Your task to perform on an android device: choose inbox layout in the gmail app Image 0: 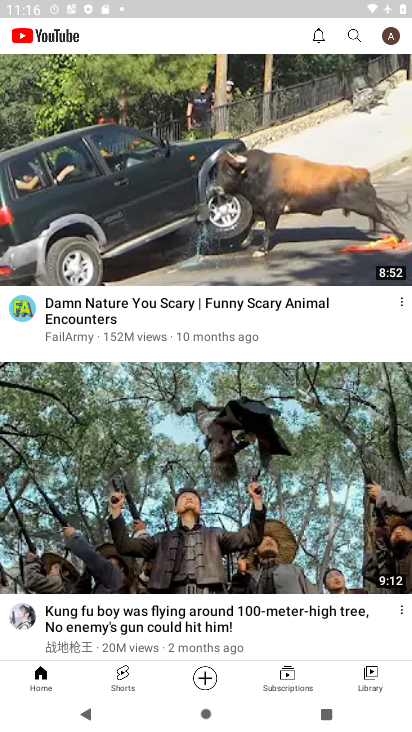
Step 0: press back button
Your task to perform on an android device: choose inbox layout in the gmail app Image 1: 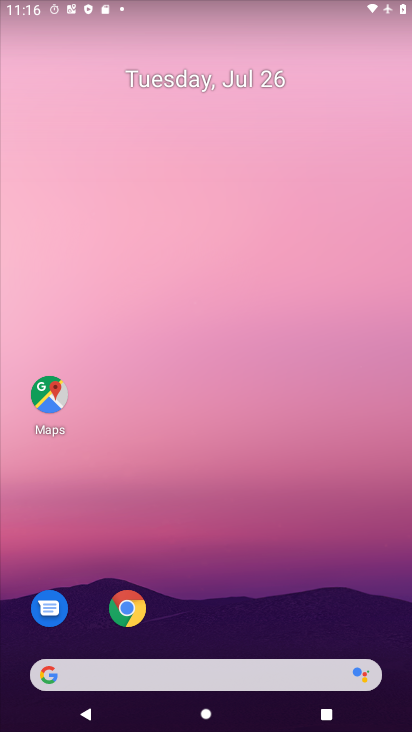
Step 1: drag from (212, 608) to (213, 162)
Your task to perform on an android device: choose inbox layout in the gmail app Image 2: 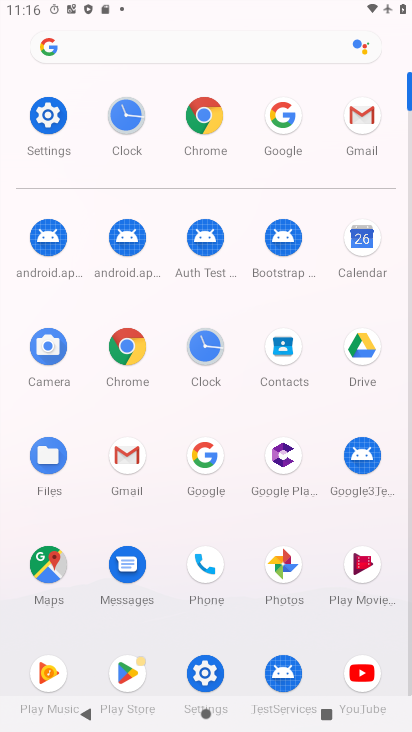
Step 2: click (351, 126)
Your task to perform on an android device: choose inbox layout in the gmail app Image 3: 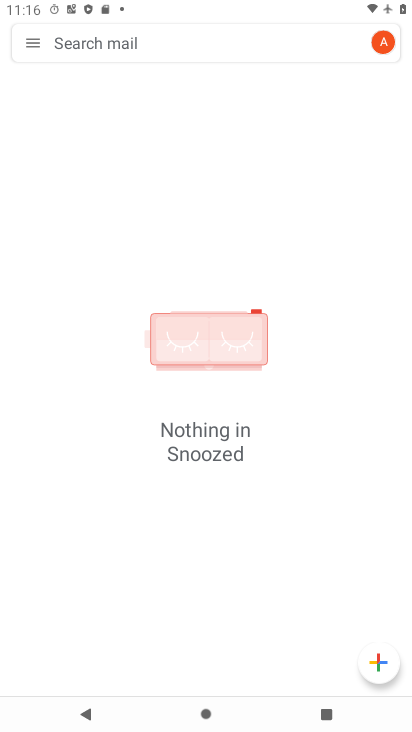
Step 3: click (34, 40)
Your task to perform on an android device: choose inbox layout in the gmail app Image 4: 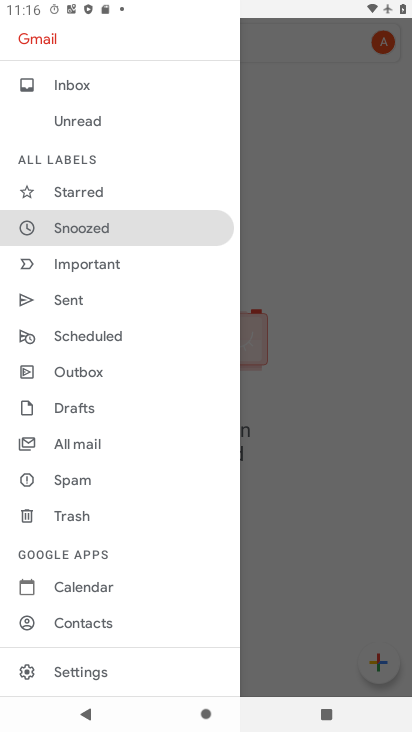
Step 4: click (106, 656)
Your task to perform on an android device: choose inbox layout in the gmail app Image 5: 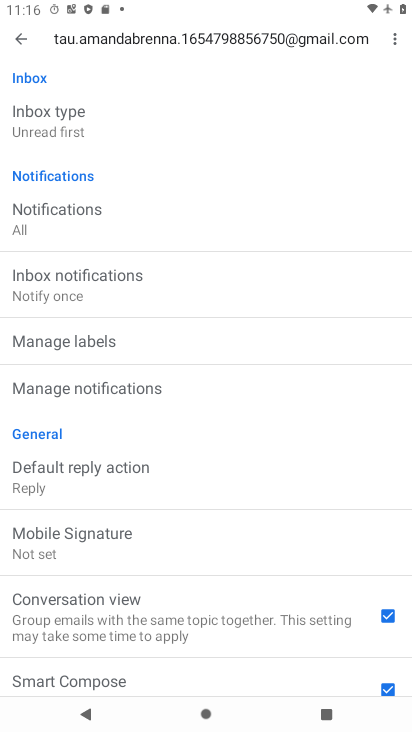
Step 5: click (91, 136)
Your task to perform on an android device: choose inbox layout in the gmail app Image 6: 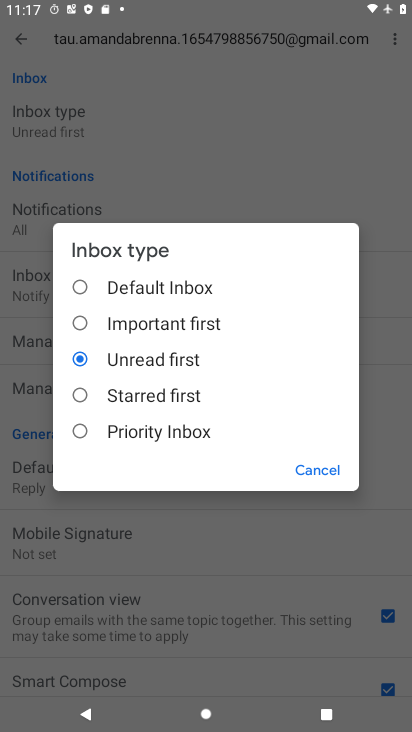
Step 6: click (145, 431)
Your task to perform on an android device: choose inbox layout in the gmail app Image 7: 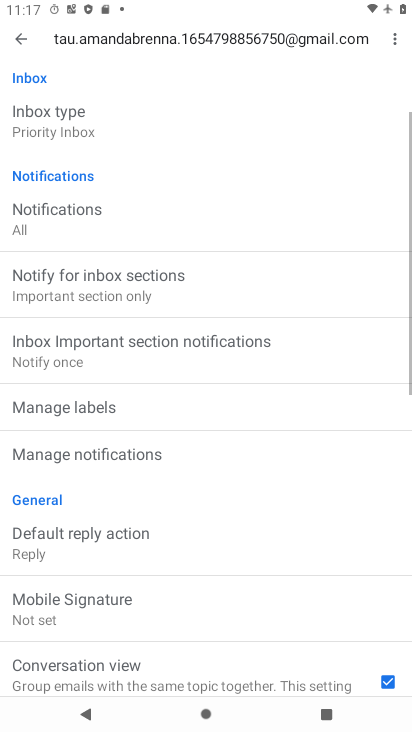
Step 7: task complete